Your task to perform on an android device: Search for seafood restaurants on Google Maps Image 0: 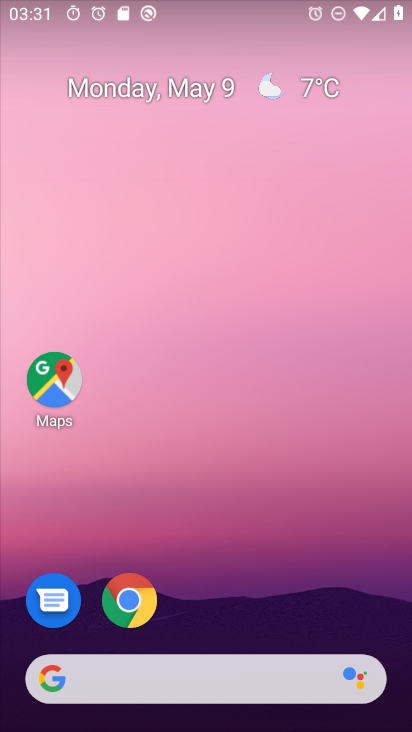
Step 0: drag from (191, 658) to (213, 173)
Your task to perform on an android device: Search for seafood restaurants on Google Maps Image 1: 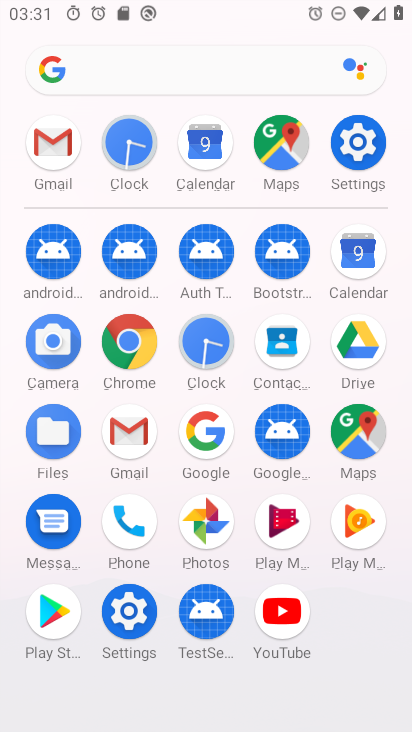
Step 1: click (361, 428)
Your task to perform on an android device: Search for seafood restaurants on Google Maps Image 2: 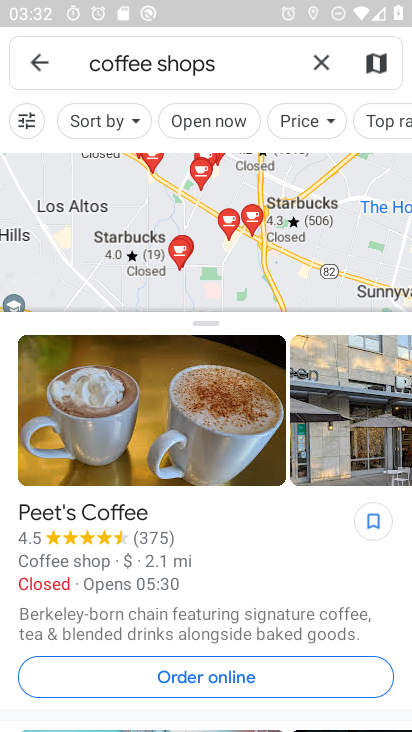
Step 2: click (319, 57)
Your task to perform on an android device: Search for seafood restaurants on Google Maps Image 3: 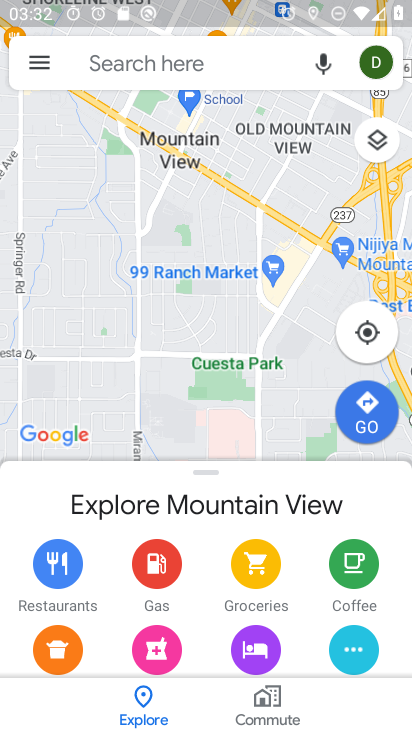
Step 3: click (217, 63)
Your task to perform on an android device: Search for seafood restaurants on Google Maps Image 4: 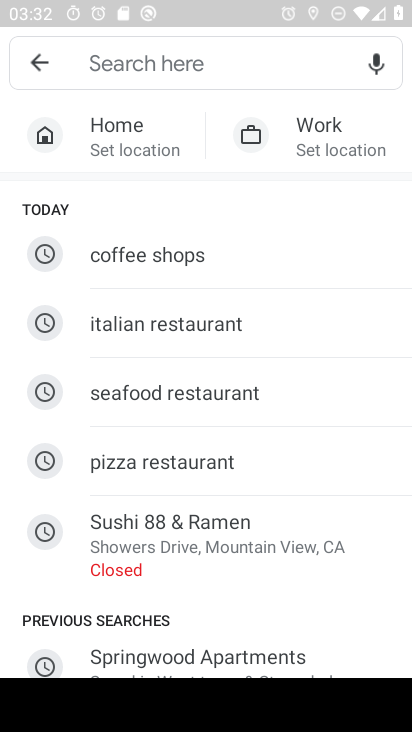
Step 4: click (145, 398)
Your task to perform on an android device: Search for seafood restaurants on Google Maps Image 5: 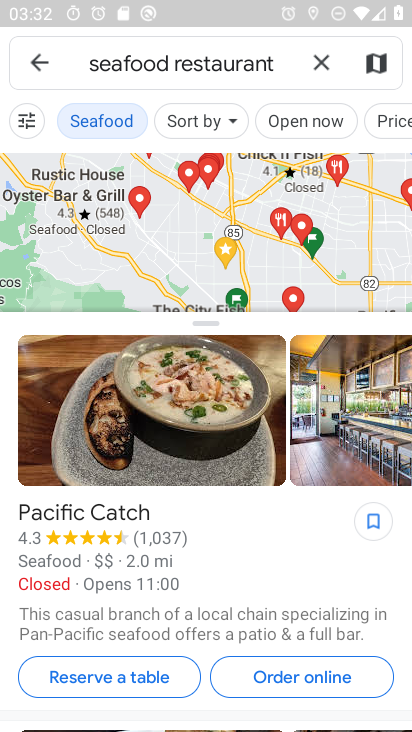
Step 5: task complete